Your task to perform on an android device: Open settings Image 0: 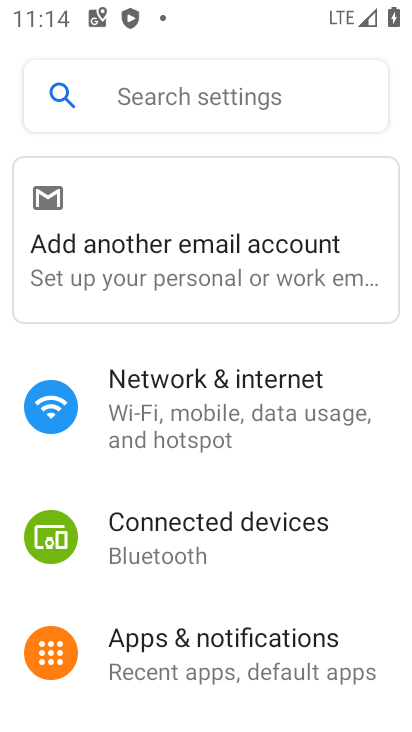
Step 0: drag from (210, 621) to (199, 131)
Your task to perform on an android device: Open settings Image 1: 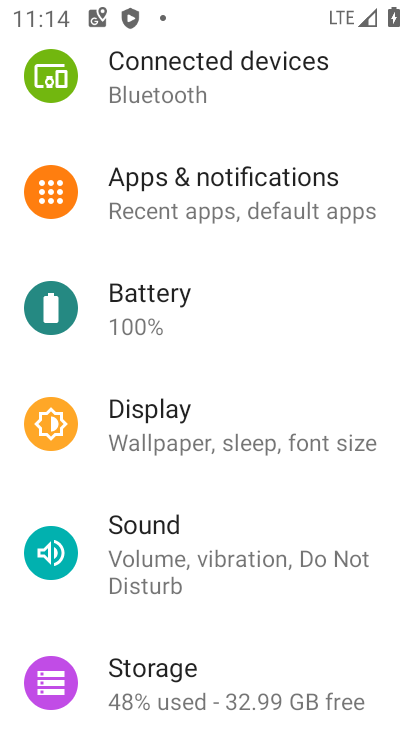
Step 1: task complete